Your task to perform on an android device: turn off javascript in the chrome app Image 0: 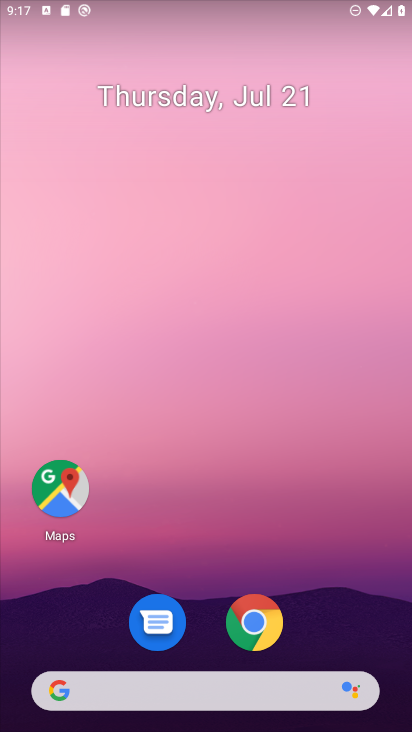
Step 0: click (265, 624)
Your task to perform on an android device: turn off javascript in the chrome app Image 1: 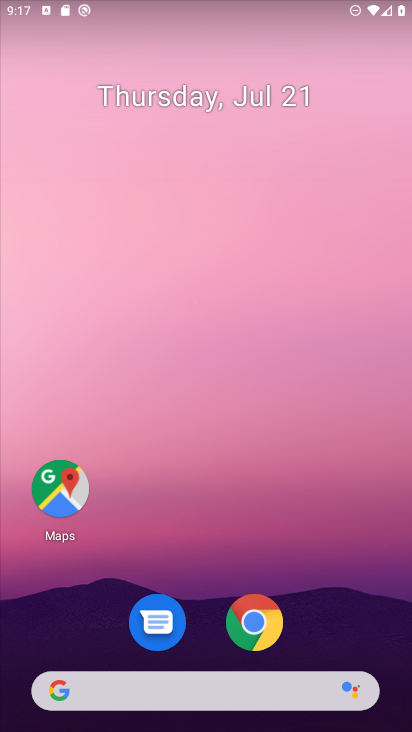
Step 1: click (265, 624)
Your task to perform on an android device: turn off javascript in the chrome app Image 2: 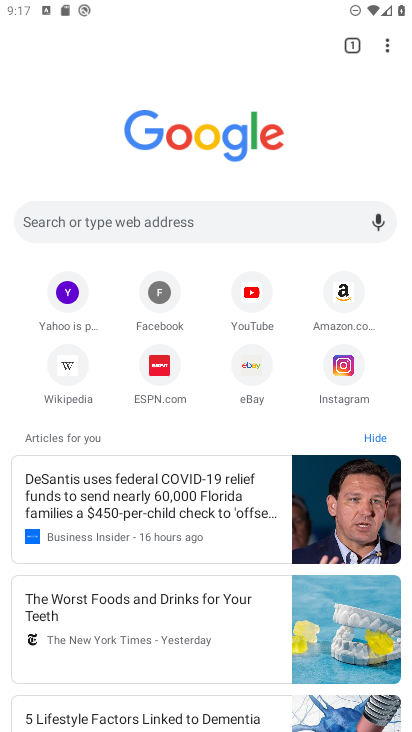
Step 2: click (385, 45)
Your task to perform on an android device: turn off javascript in the chrome app Image 3: 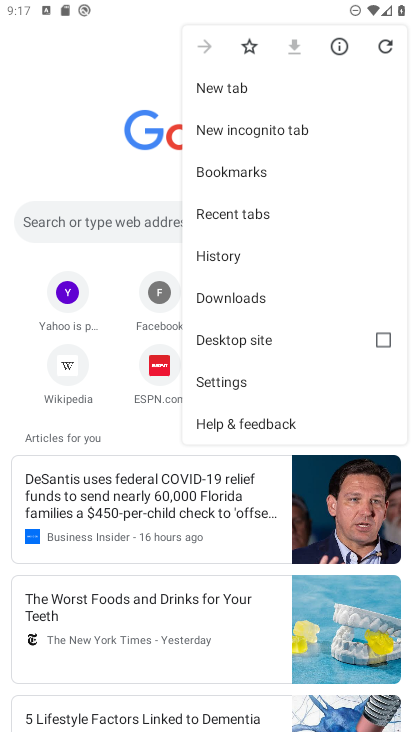
Step 3: click (236, 380)
Your task to perform on an android device: turn off javascript in the chrome app Image 4: 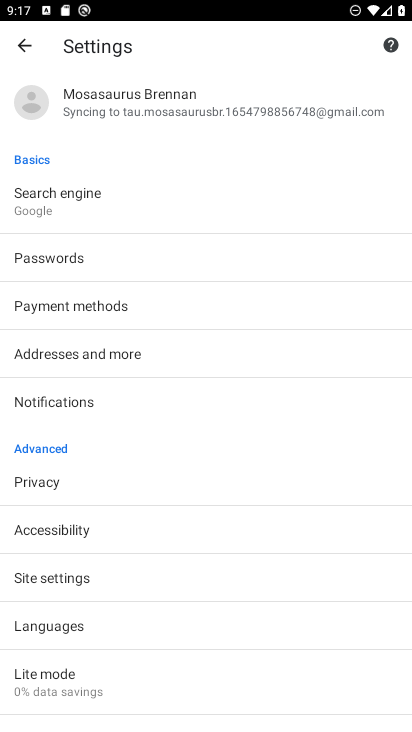
Step 4: click (65, 575)
Your task to perform on an android device: turn off javascript in the chrome app Image 5: 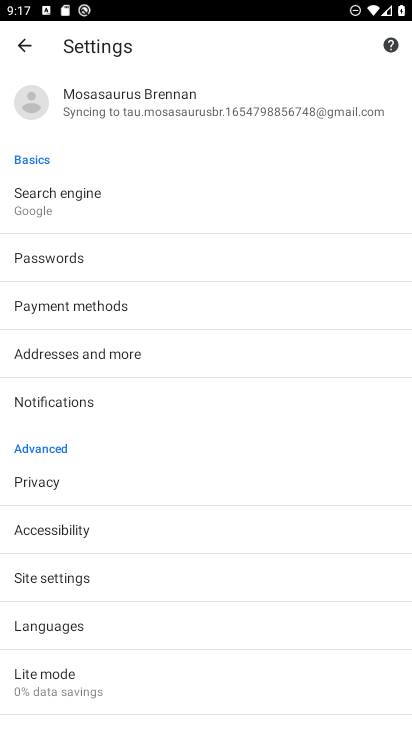
Step 5: click (65, 575)
Your task to perform on an android device: turn off javascript in the chrome app Image 6: 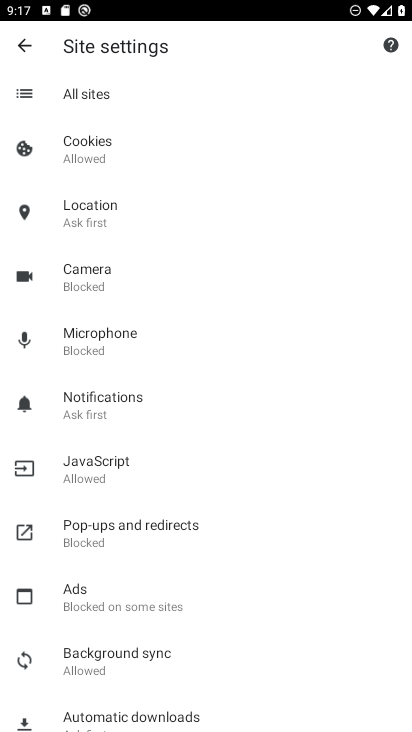
Step 6: click (117, 464)
Your task to perform on an android device: turn off javascript in the chrome app Image 7: 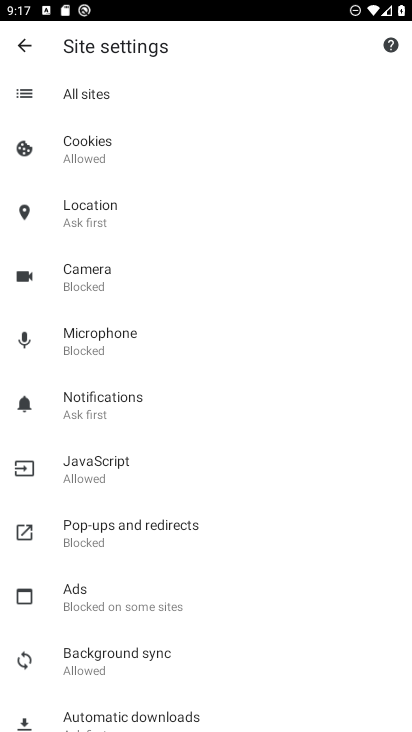
Step 7: click (117, 464)
Your task to perform on an android device: turn off javascript in the chrome app Image 8: 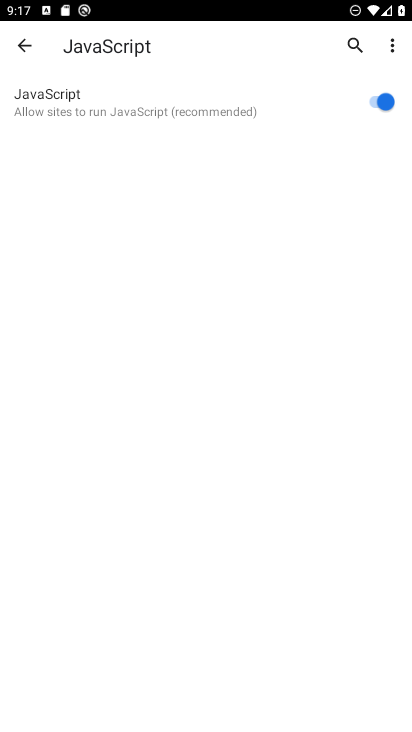
Step 8: click (380, 100)
Your task to perform on an android device: turn off javascript in the chrome app Image 9: 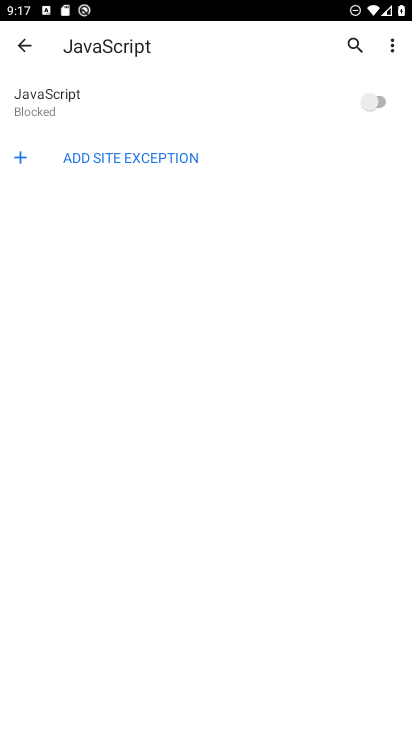
Step 9: task complete